Your task to perform on an android device: delete a single message in the gmail app Image 0: 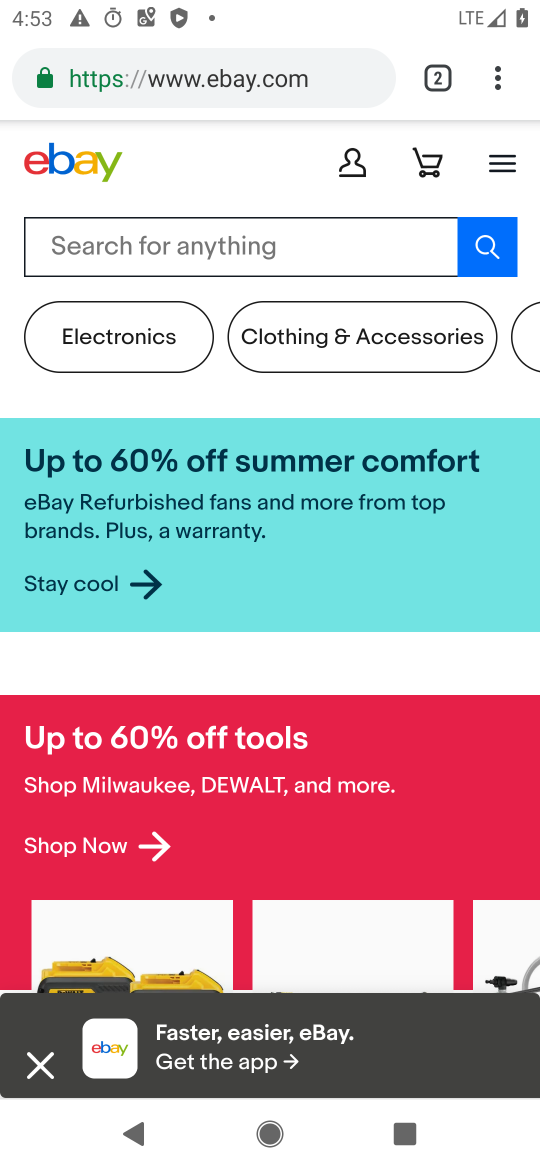
Step 0: press home button
Your task to perform on an android device: delete a single message in the gmail app Image 1: 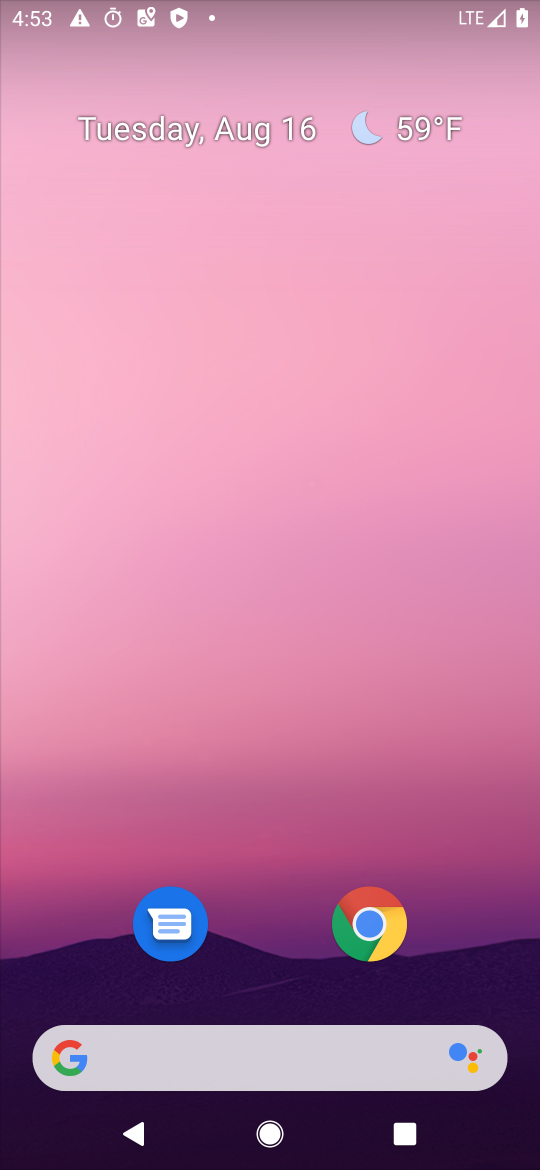
Step 1: drag from (253, 977) to (262, 404)
Your task to perform on an android device: delete a single message in the gmail app Image 2: 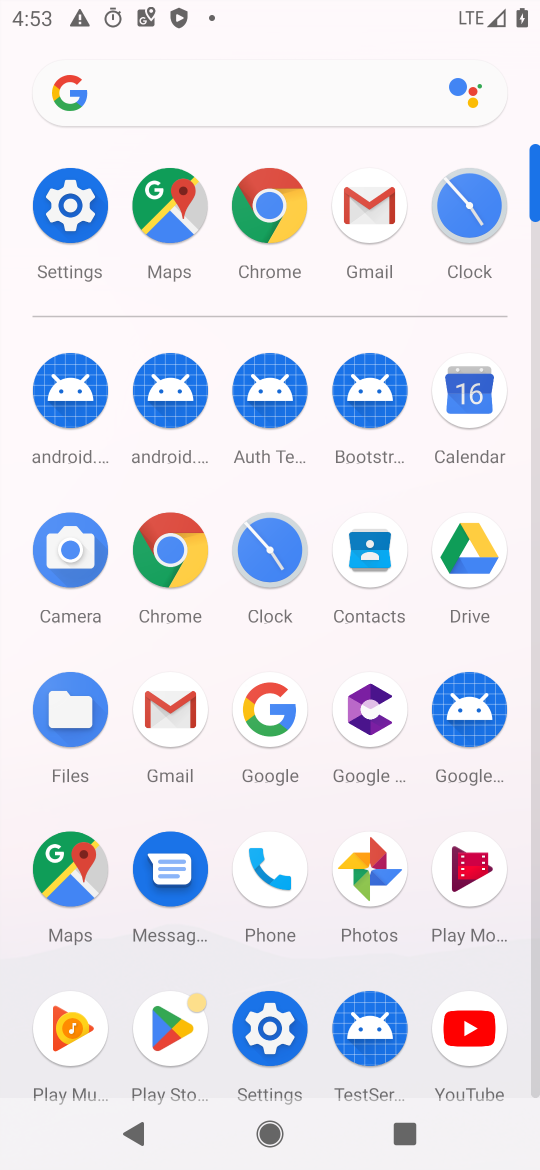
Step 2: click (386, 207)
Your task to perform on an android device: delete a single message in the gmail app Image 3: 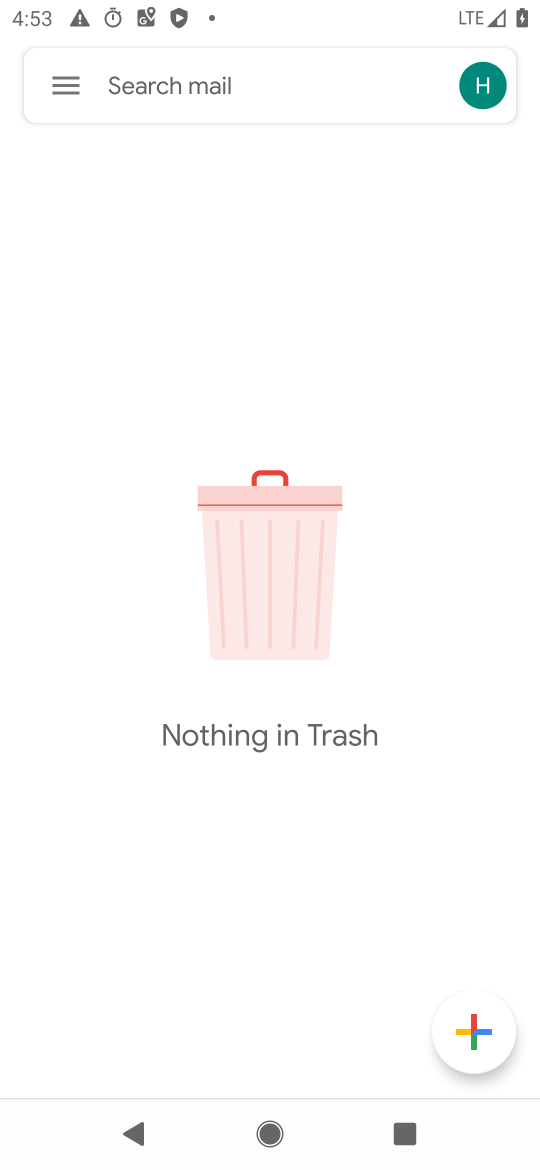
Step 3: click (80, 99)
Your task to perform on an android device: delete a single message in the gmail app Image 4: 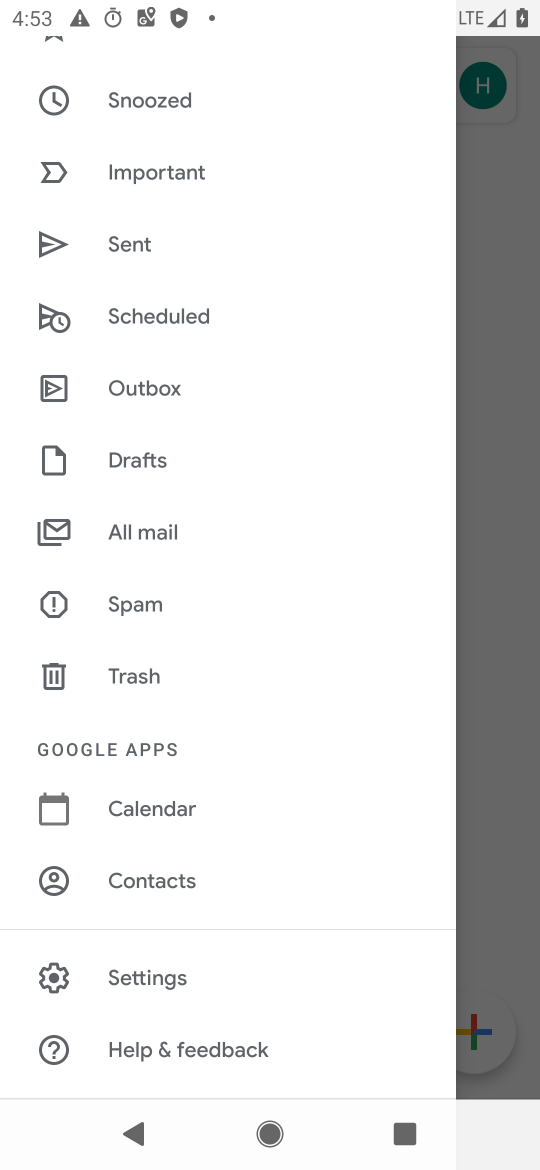
Step 4: click (169, 535)
Your task to perform on an android device: delete a single message in the gmail app Image 5: 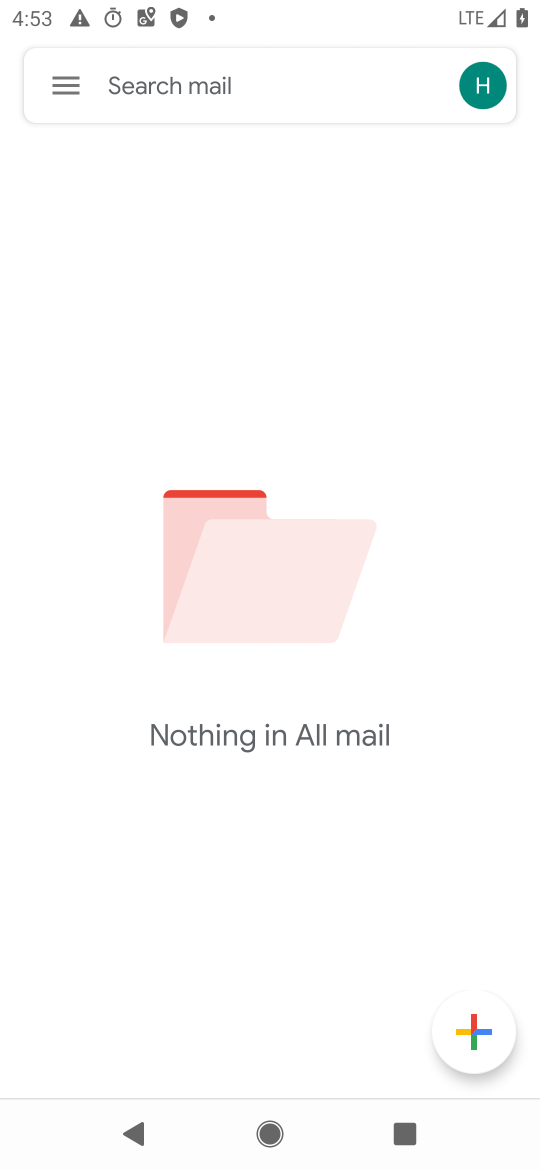
Step 5: task complete